Your task to perform on an android device: Go to accessibility settings Image 0: 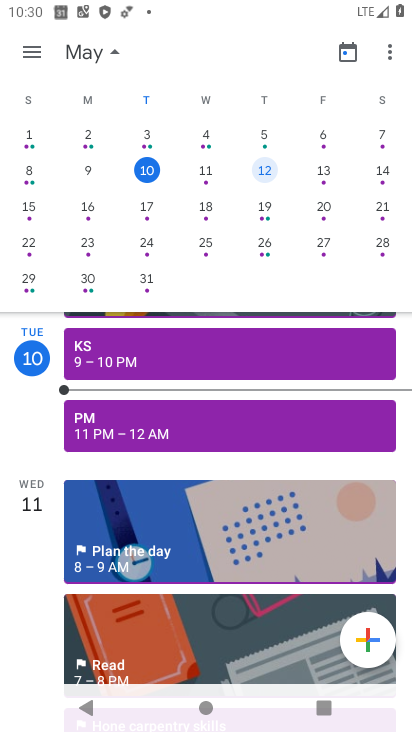
Step 0: press home button
Your task to perform on an android device: Go to accessibility settings Image 1: 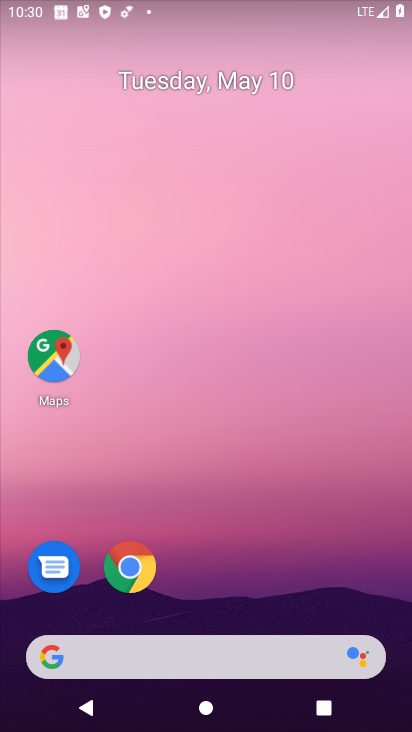
Step 1: drag from (22, 594) to (279, 121)
Your task to perform on an android device: Go to accessibility settings Image 2: 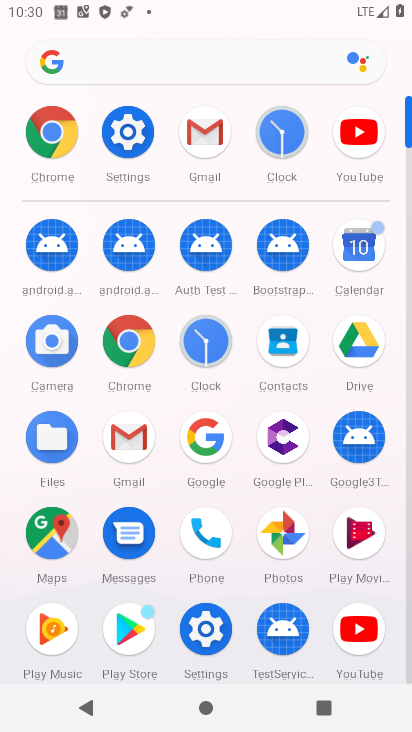
Step 2: click (133, 139)
Your task to perform on an android device: Go to accessibility settings Image 3: 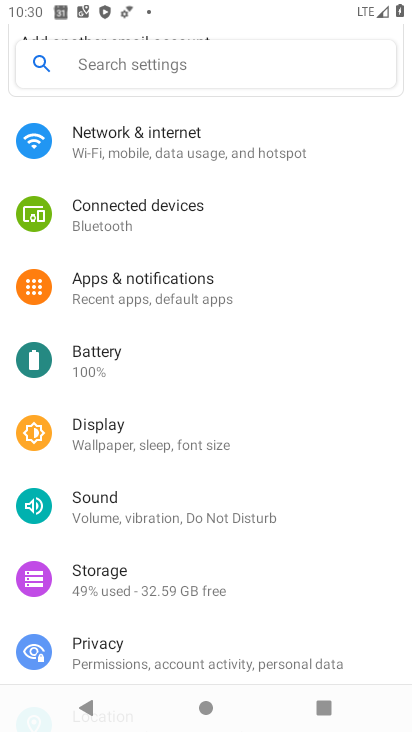
Step 3: drag from (13, 582) to (199, 165)
Your task to perform on an android device: Go to accessibility settings Image 4: 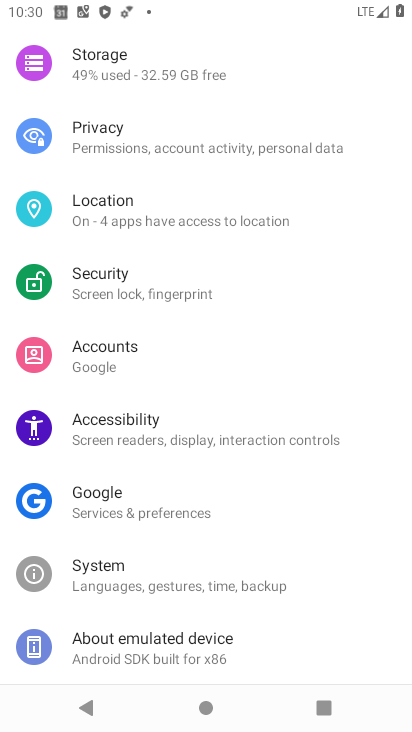
Step 4: click (125, 432)
Your task to perform on an android device: Go to accessibility settings Image 5: 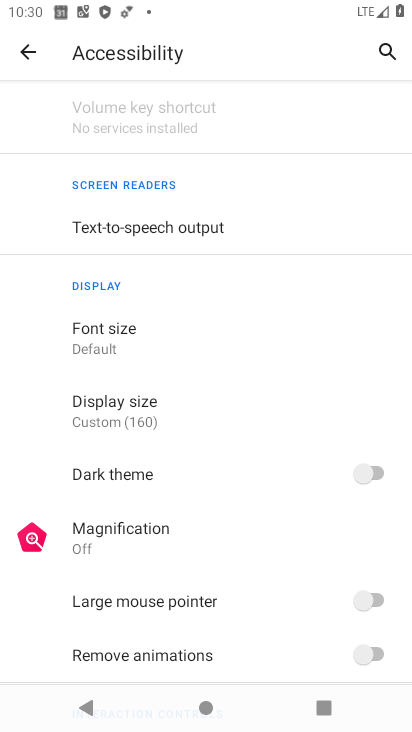
Step 5: task complete